Your task to perform on an android device: Go to CNN.com Image 0: 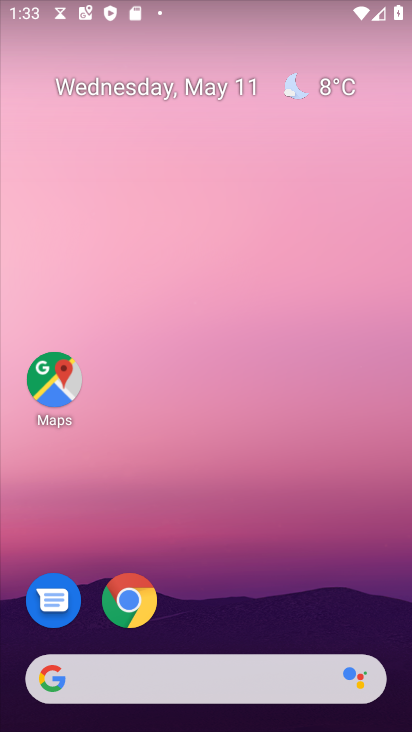
Step 0: click (133, 595)
Your task to perform on an android device: Go to CNN.com Image 1: 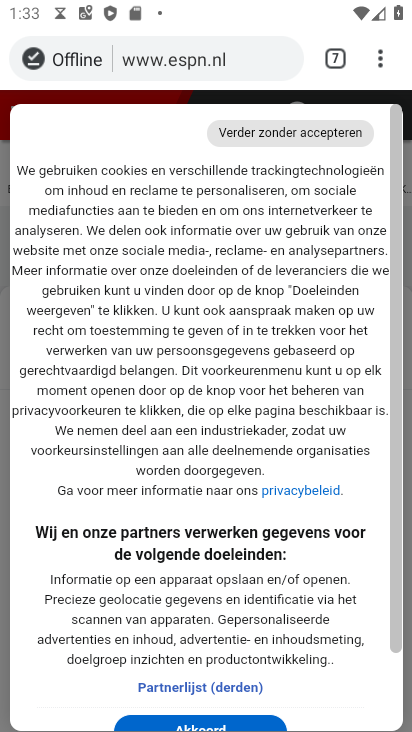
Step 1: click (332, 53)
Your task to perform on an android device: Go to CNN.com Image 2: 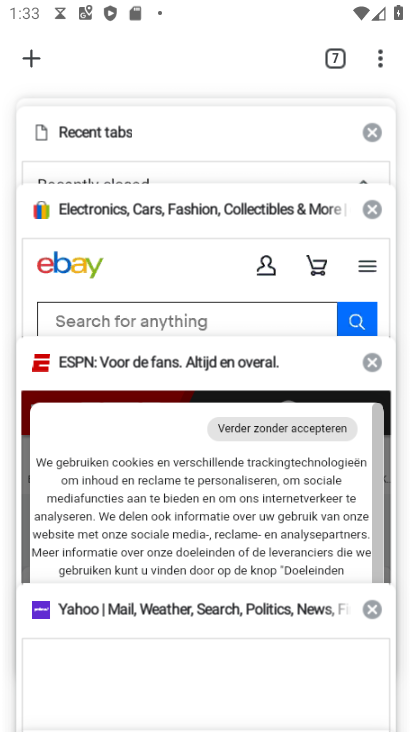
Step 2: drag from (164, 204) to (138, 612)
Your task to perform on an android device: Go to CNN.com Image 3: 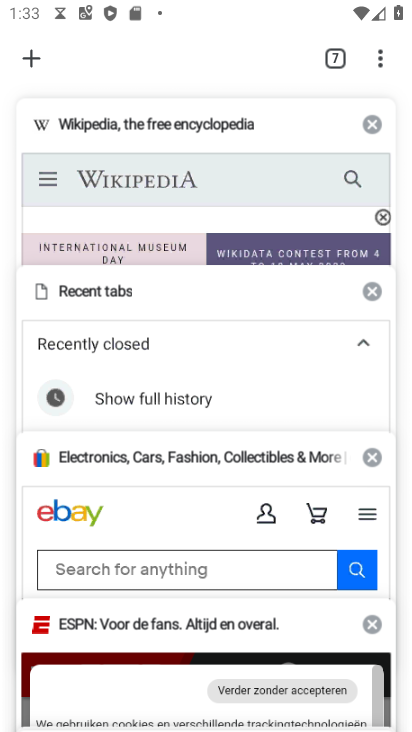
Step 3: drag from (183, 235) to (162, 591)
Your task to perform on an android device: Go to CNN.com Image 4: 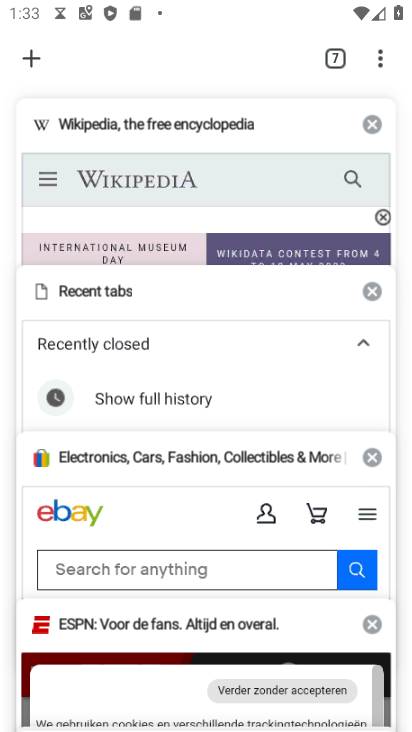
Step 4: click (31, 53)
Your task to perform on an android device: Go to CNN.com Image 5: 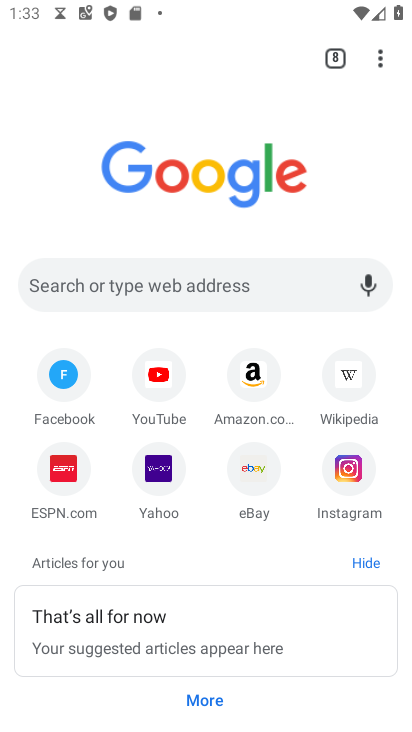
Step 5: click (159, 284)
Your task to perform on an android device: Go to CNN.com Image 6: 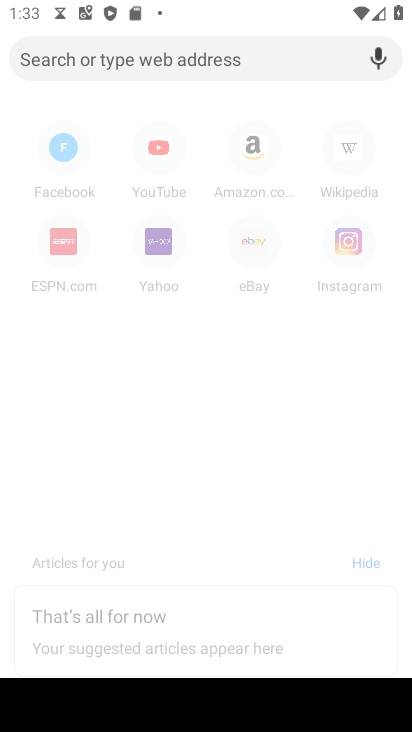
Step 6: type "CNN.com"
Your task to perform on an android device: Go to CNN.com Image 7: 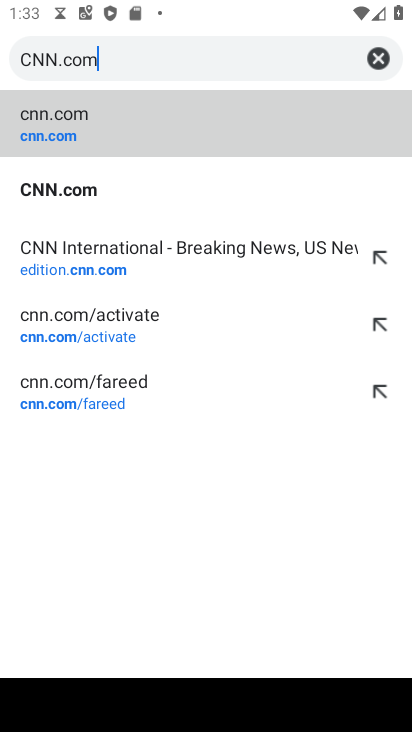
Step 7: click (125, 137)
Your task to perform on an android device: Go to CNN.com Image 8: 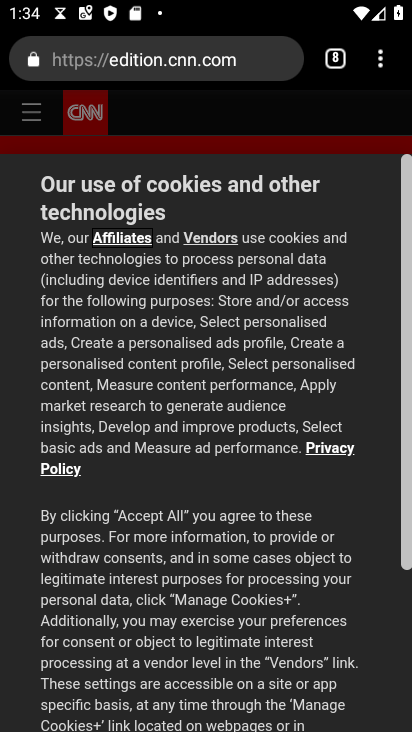
Step 8: task complete